Your task to perform on an android device: Turn off the flashlight Image 0: 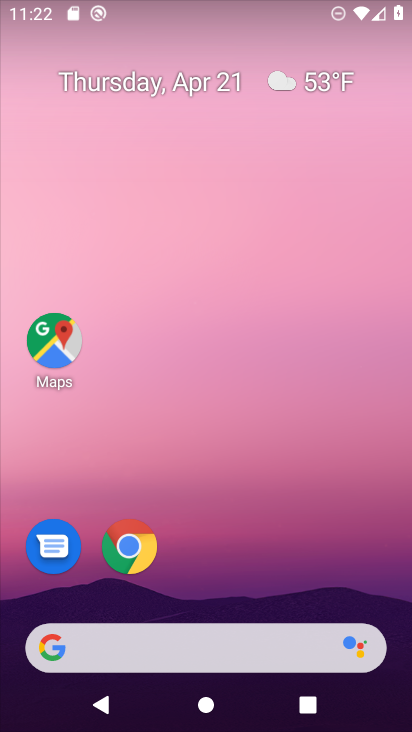
Step 0: drag from (209, 5) to (223, 507)
Your task to perform on an android device: Turn off the flashlight Image 1: 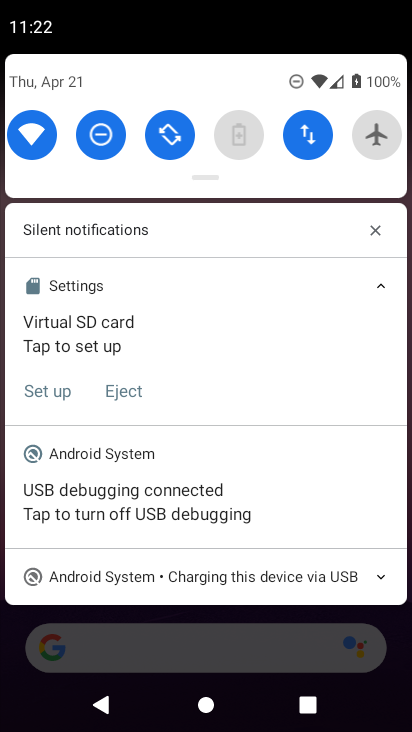
Step 1: drag from (235, 198) to (297, 473)
Your task to perform on an android device: Turn off the flashlight Image 2: 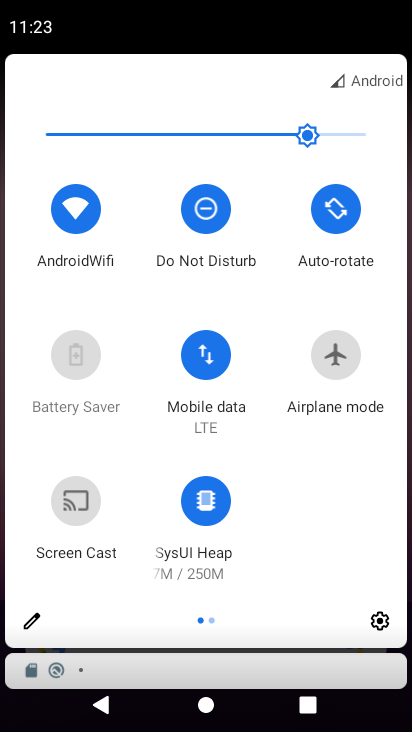
Step 2: drag from (361, 402) to (13, 532)
Your task to perform on an android device: Turn off the flashlight Image 3: 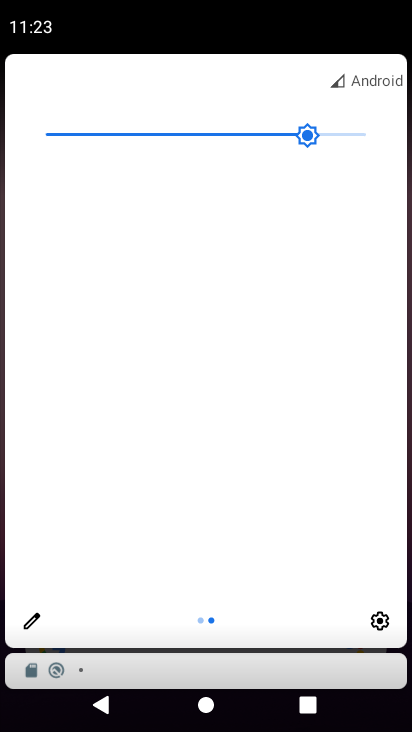
Step 3: click (33, 620)
Your task to perform on an android device: Turn off the flashlight Image 4: 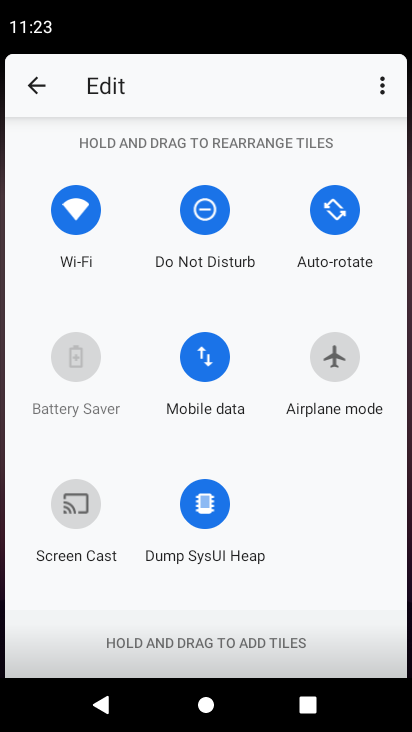
Step 4: task complete